Your task to perform on an android device: clear history in the chrome app Image 0: 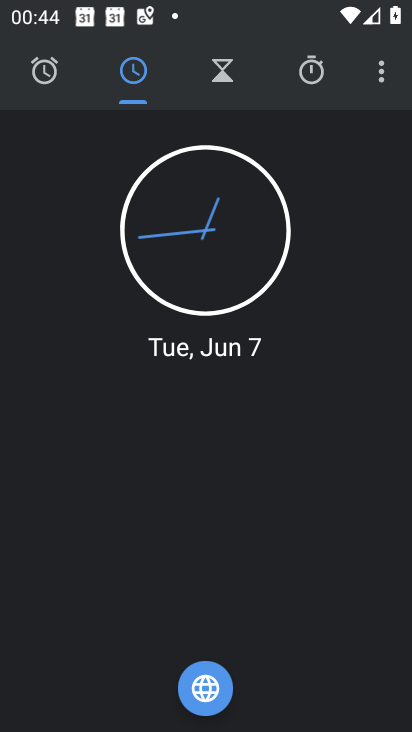
Step 0: press home button
Your task to perform on an android device: clear history in the chrome app Image 1: 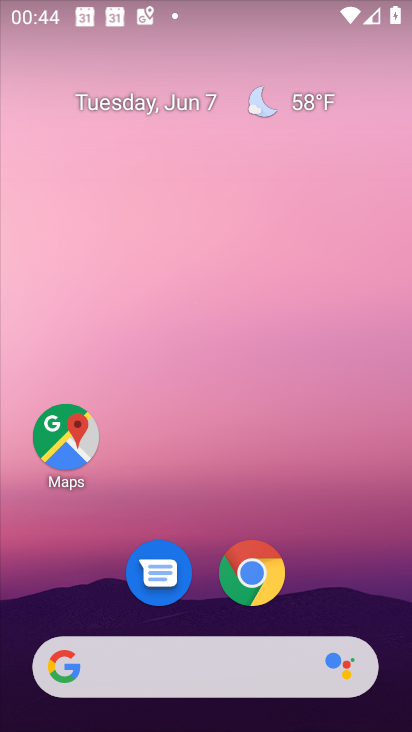
Step 1: drag from (370, 597) to (346, 77)
Your task to perform on an android device: clear history in the chrome app Image 2: 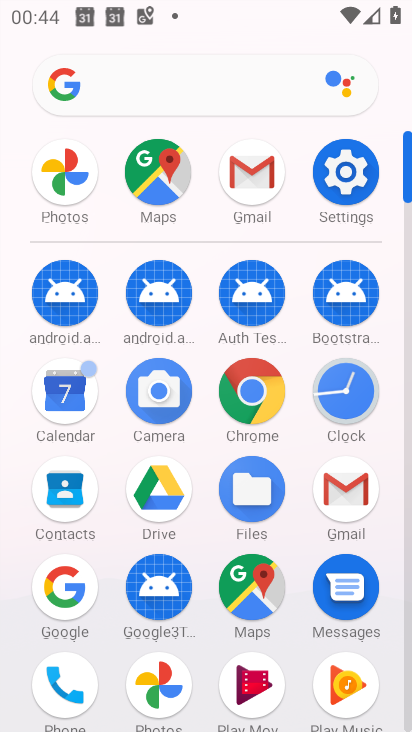
Step 2: click (241, 398)
Your task to perform on an android device: clear history in the chrome app Image 3: 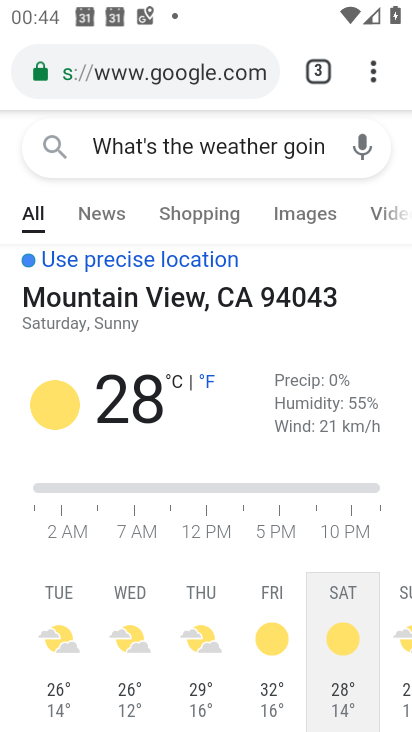
Step 3: drag from (376, 72) to (176, 401)
Your task to perform on an android device: clear history in the chrome app Image 4: 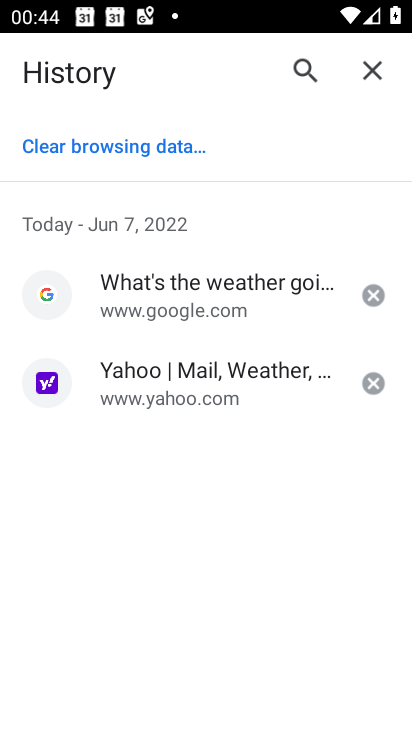
Step 4: click (108, 160)
Your task to perform on an android device: clear history in the chrome app Image 5: 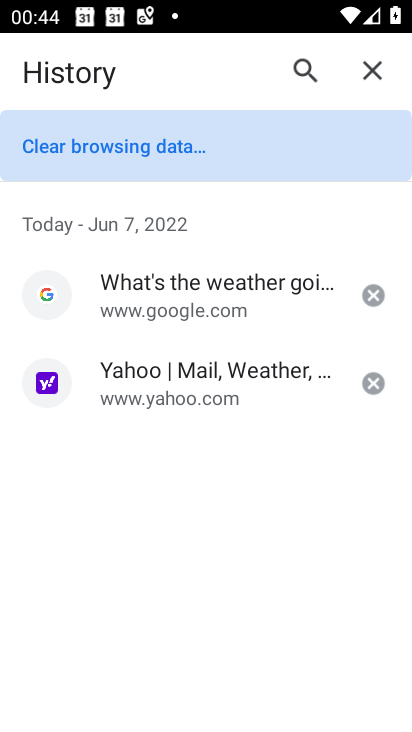
Step 5: click (108, 153)
Your task to perform on an android device: clear history in the chrome app Image 6: 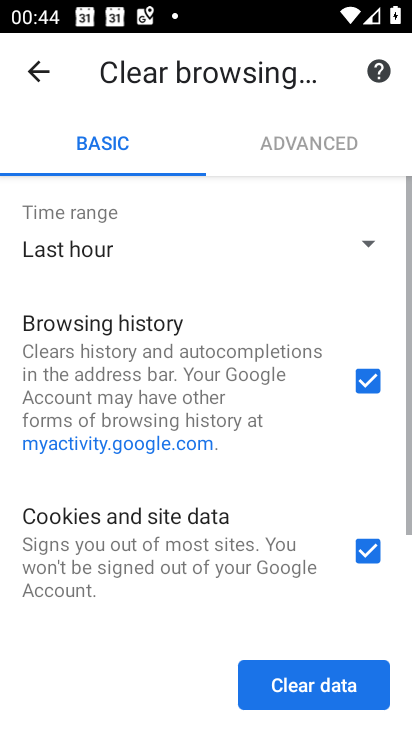
Step 6: click (318, 681)
Your task to perform on an android device: clear history in the chrome app Image 7: 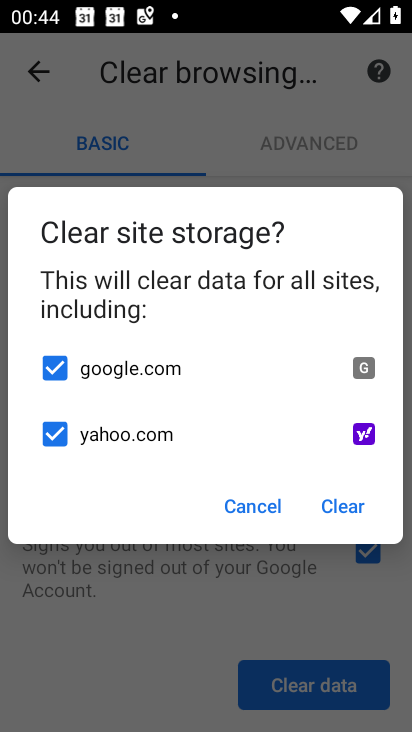
Step 7: click (334, 502)
Your task to perform on an android device: clear history in the chrome app Image 8: 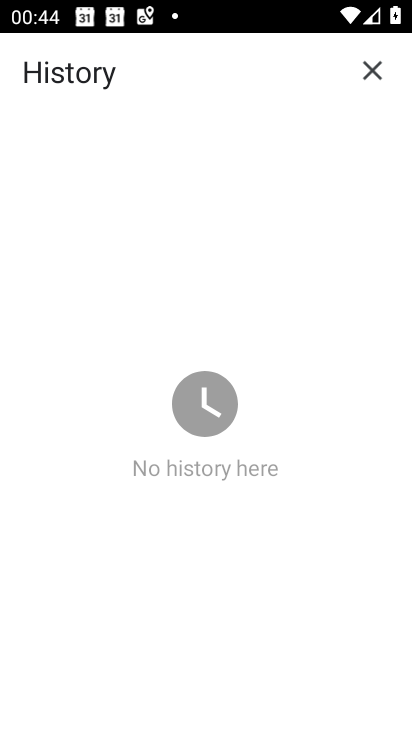
Step 8: task complete